Your task to perform on an android device: turn on improve location accuracy Image 0: 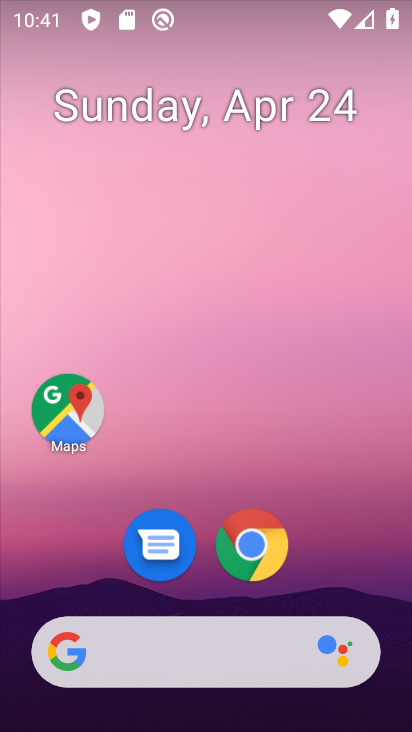
Step 0: drag from (286, 692) to (275, 80)
Your task to perform on an android device: turn on improve location accuracy Image 1: 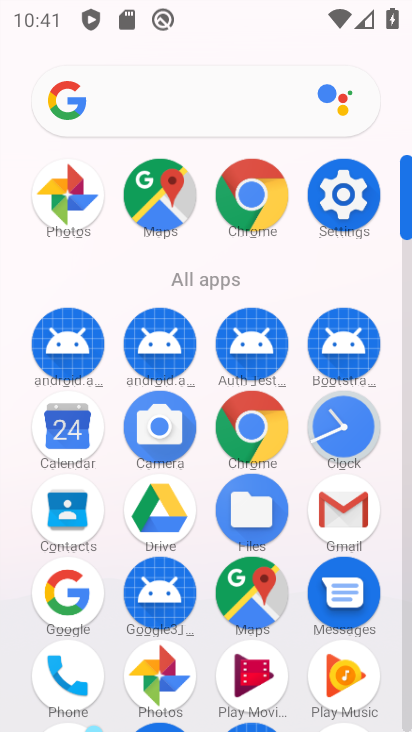
Step 1: click (354, 199)
Your task to perform on an android device: turn on improve location accuracy Image 2: 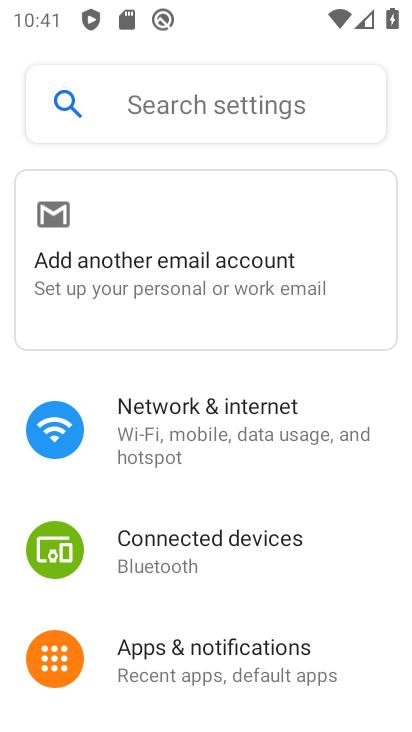
Step 2: click (231, 127)
Your task to perform on an android device: turn on improve location accuracy Image 3: 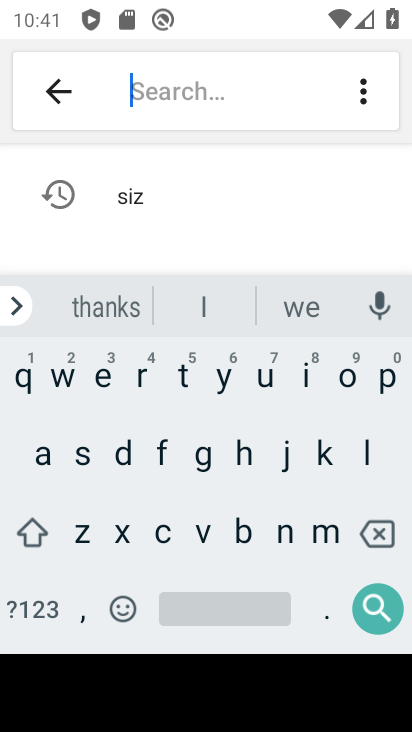
Step 3: click (361, 453)
Your task to perform on an android device: turn on improve location accuracy Image 4: 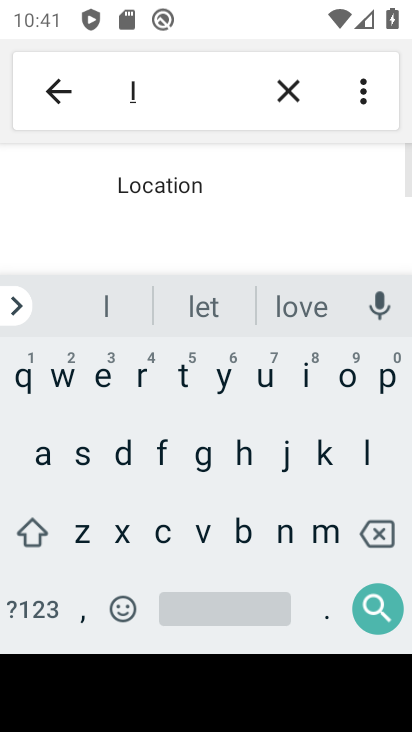
Step 4: click (335, 382)
Your task to perform on an android device: turn on improve location accuracy Image 5: 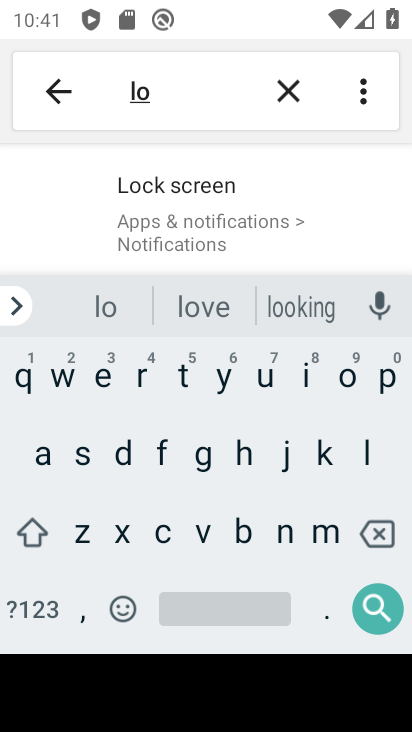
Step 5: click (161, 531)
Your task to perform on an android device: turn on improve location accuracy Image 6: 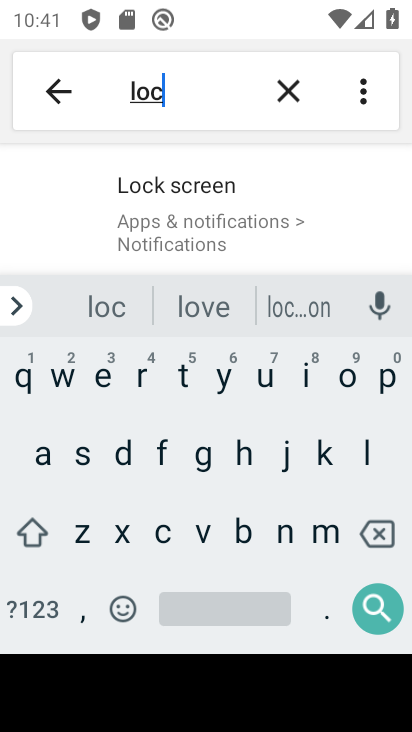
Step 6: click (39, 456)
Your task to perform on an android device: turn on improve location accuracy Image 7: 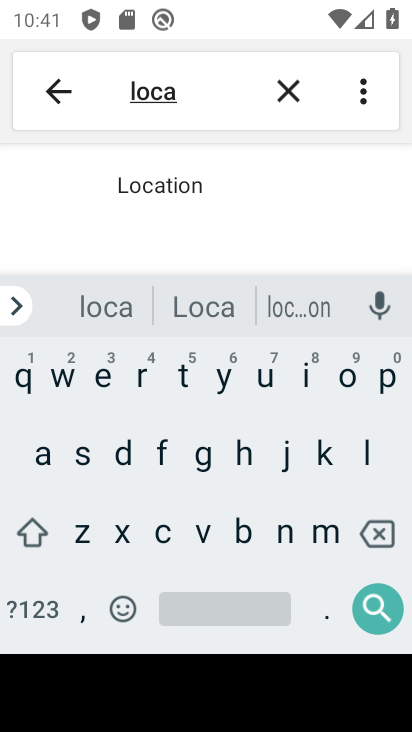
Step 7: drag from (151, 243) to (131, 149)
Your task to perform on an android device: turn on improve location accuracy Image 8: 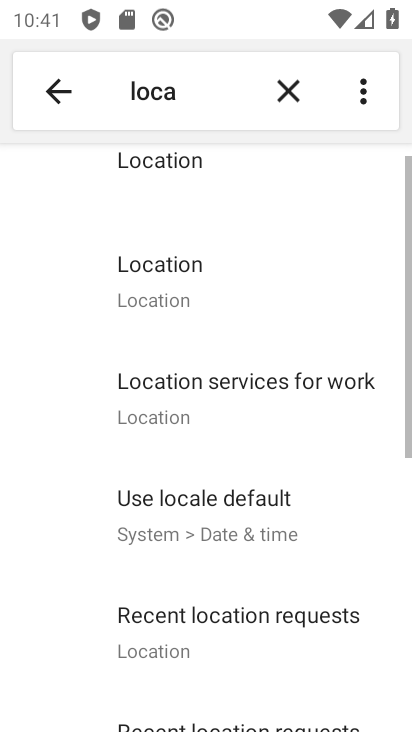
Step 8: click (187, 269)
Your task to perform on an android device: turn on improve location accuracy Image 9: 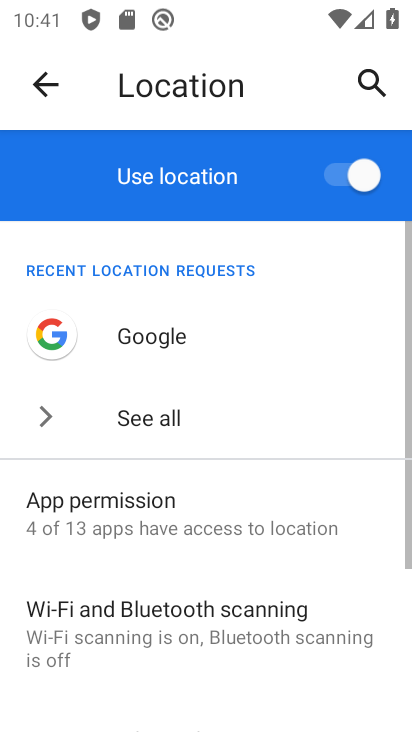
Step 9: drag from (138, 568) to (174, 336)
Your task to perform on an android device: turn on improve location accuracy Image 10: 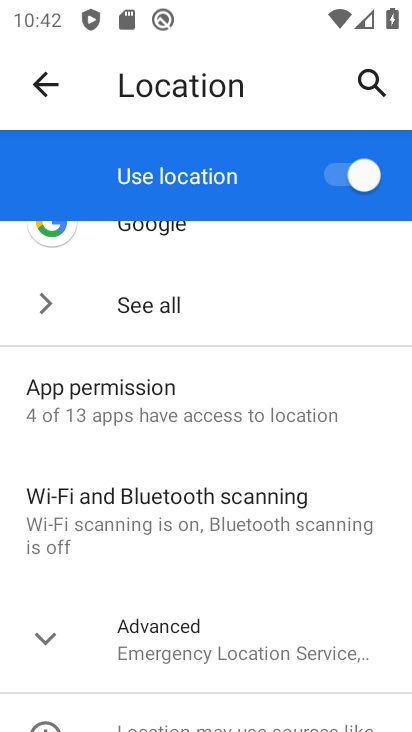
Step 10: click (52, 631)
Your task to perform on an android device: turn on improve location accuracy Image 11: 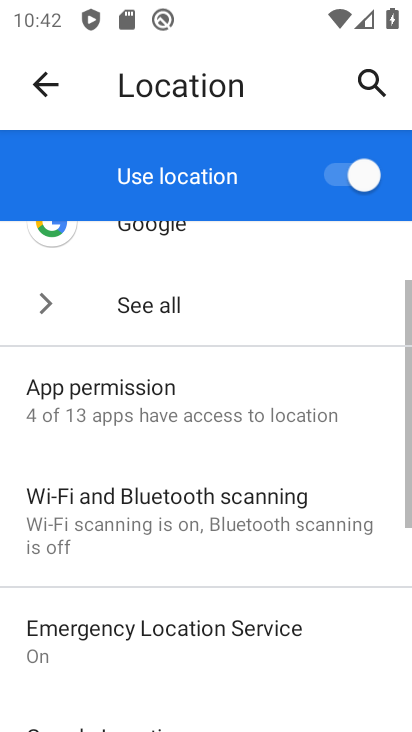
Step 11: drag from (206, 493) to (243, 418)
Your task to perform on an android device: turn on improve location accuracy Image 12: 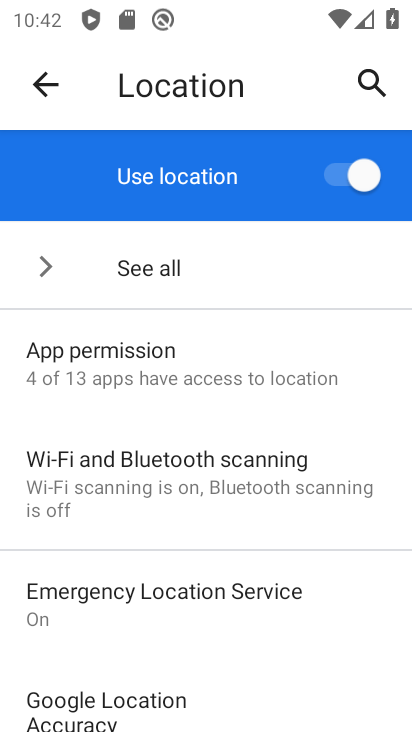
Step 12: click (169, 673)
Your task to perform on an android device: turn on improve location accuracy Image 13: 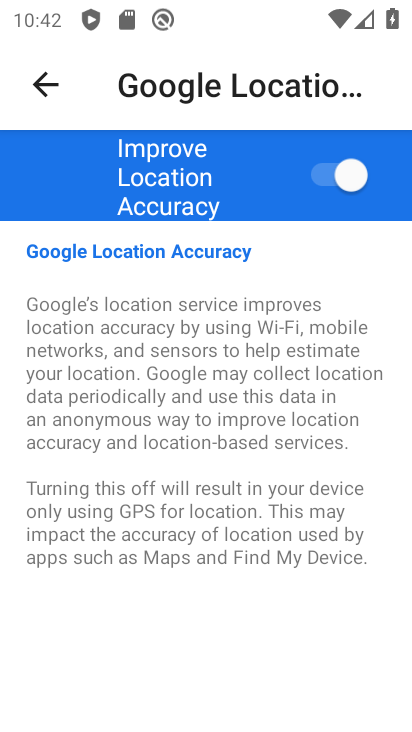
Step 13: click (343, 161)
Your task to perform on an android device: turn on improve location accuracy Image 14: 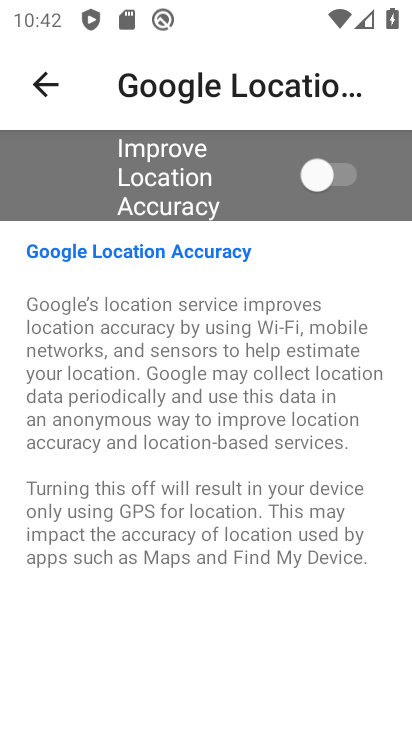
Step 14: click (340, 168)
Your task to perform on an android device: turn on improve location accuracy Image 15: 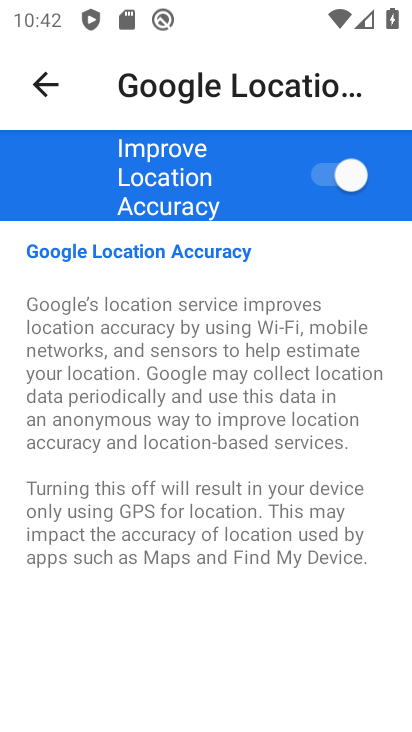
Step 15: task complete